Your task to perform on an android device: see sites visited before in the chrome app Image 0: 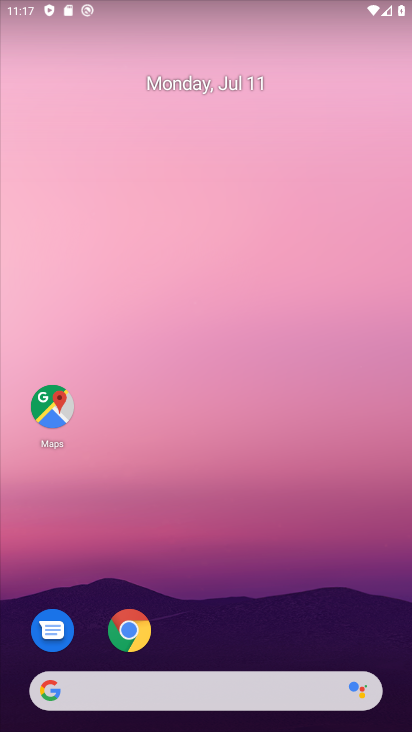
Step 0: drag from (235, 623) to (244, 203)
Your task to perform on an android device: see sites visited before in the chrome app Image 1: 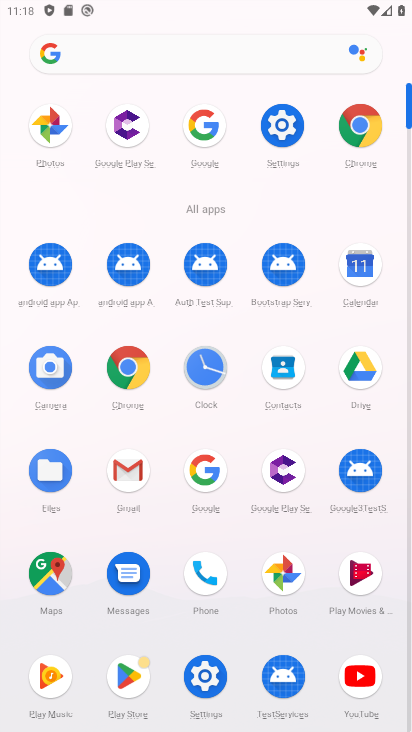
Step 1: click (361, 124)
Your task to perform on an android device: see sites visited before in the chrome app Image 2: 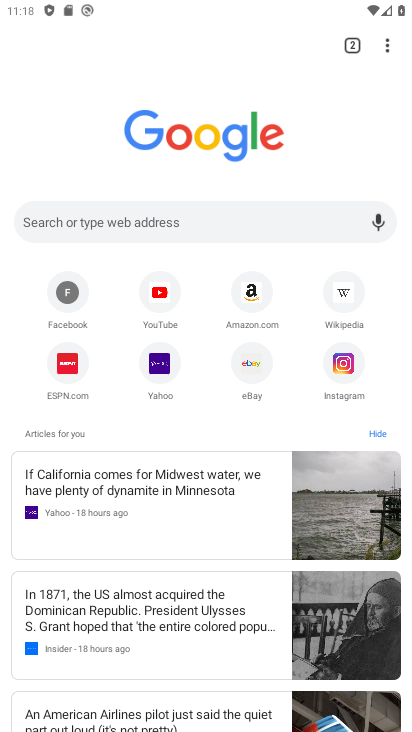
Step 2: click (385, 42)
Your task to perform on an android device: see sites visited before in the chrome app Image 3: 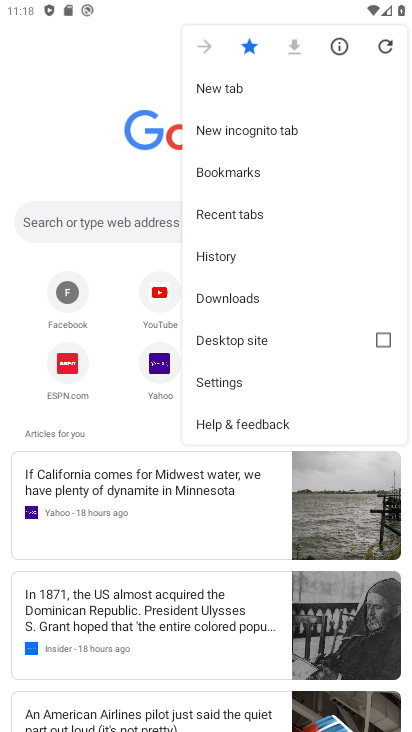
Step 3: click (224, 259)
Your task to perform on an android device: see sites visited before in the chrome app Image 4: 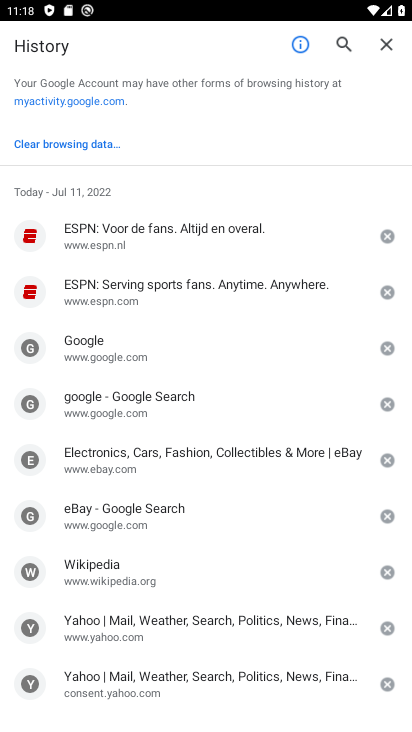
Step 4: task complete